Your task to perform on an android device: Open location settings Image 0: 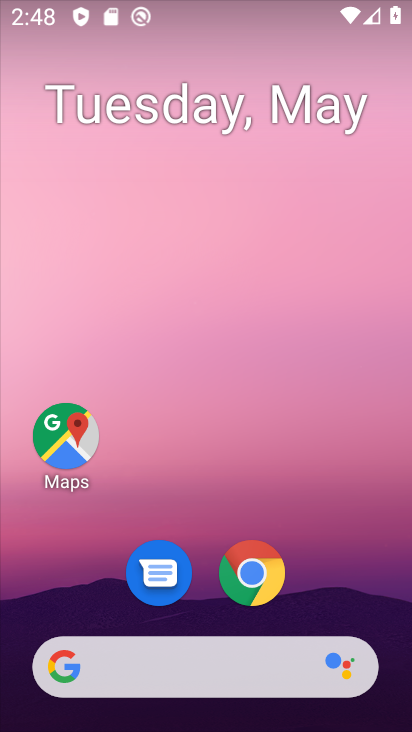
Step 0: drag from (282, 439) to (199, 17)
Your task to perform on an android device: Open location settings Image 1: 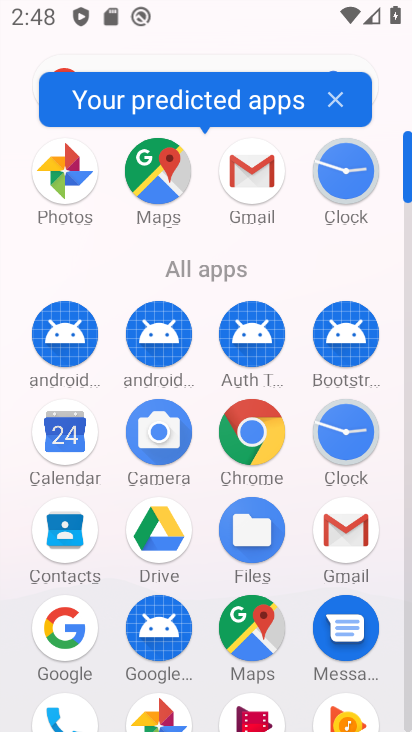
Step 1: drag from (10, 606) to (24, 295)
Your task to perform on an android device: Open location settings Image 2: 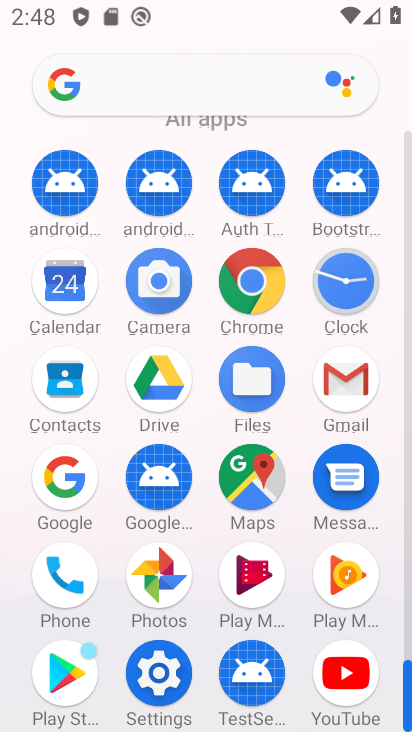
Step 2: click (157, 673)
Your task to perform on an android device: Open location settings Image 3: 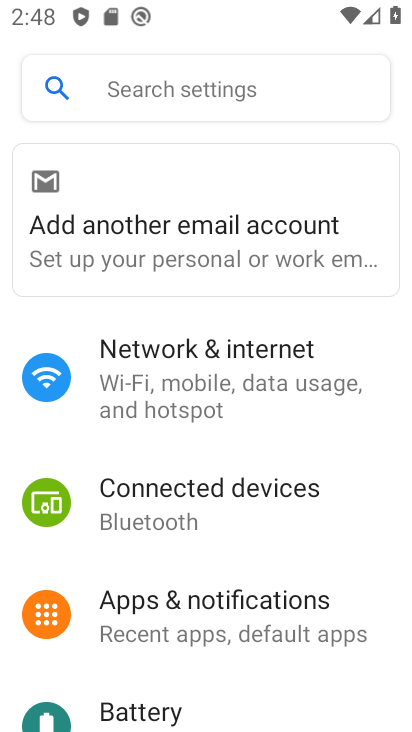
Step 3: drag from (305, 607) to (314, 179)
Your task to perform on an android device: Open location settings Image 4: 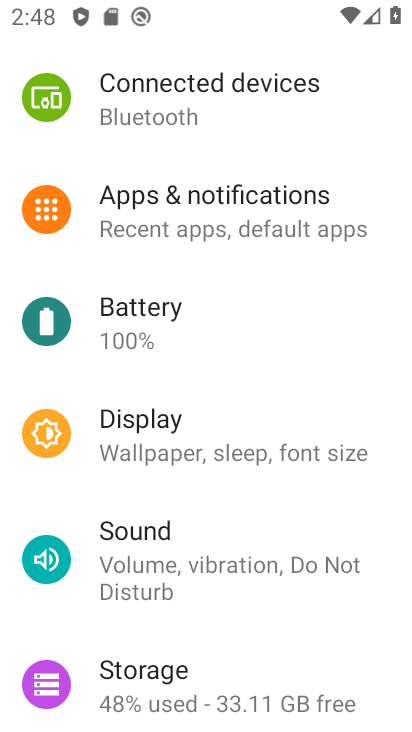
Step 4: drag from (305, 599) to (305, 173)
Your task to perform on an android device: Open location settings Image 5: 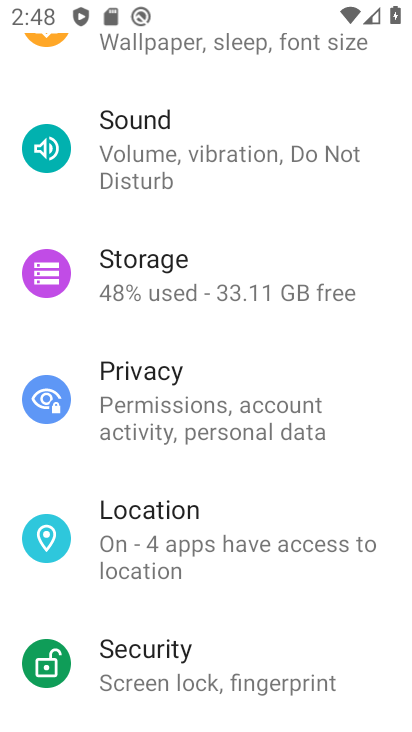
Step 5: click (195, 517)
Your task to perform on an android device: Open location settings Image 6: 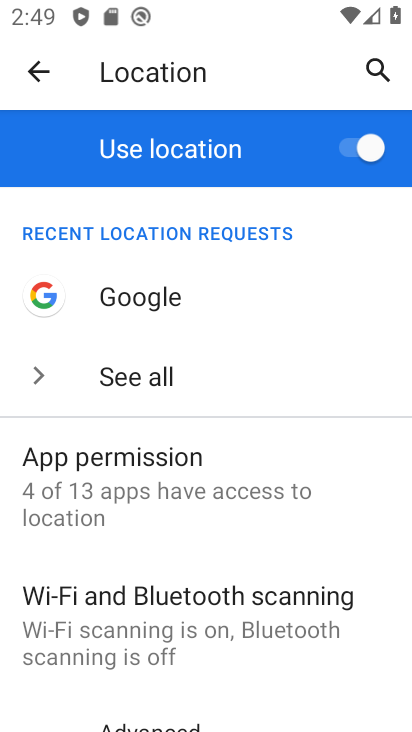
Step 6: task complete